Your task to perform on an android device: Search for "apple airpods pro" on bestbuy.com, select the first entry, add it to the cart, then select checkout. Image 0: 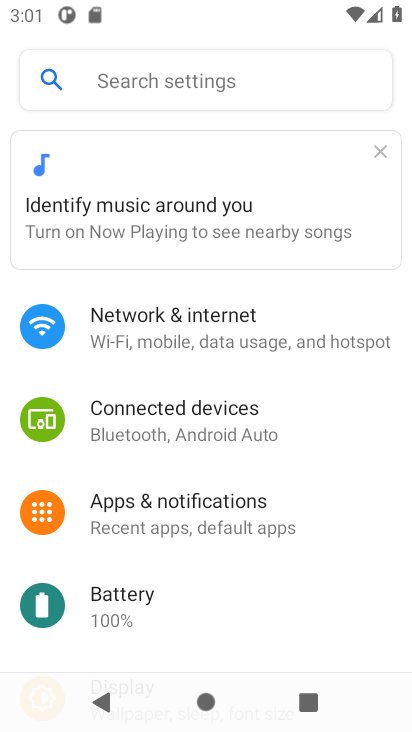
Step 0: drag from (132, 591) to (158, 99)
Your task to perform on an android device: Search for "apple airpods pro" on bestbuy.com, select the first entry, add it to the cart, then select checkout. Image 1: 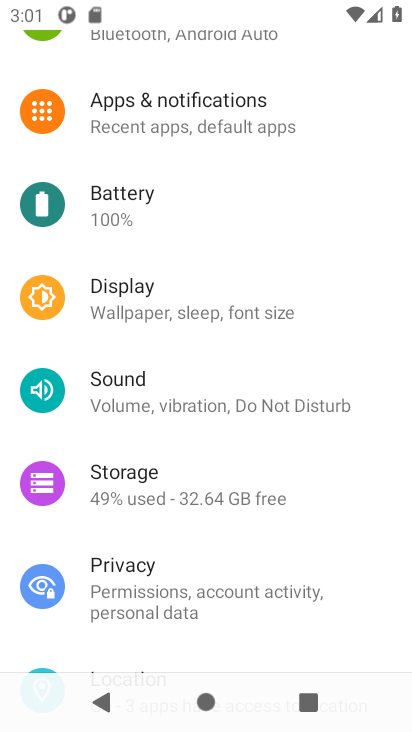
Step 1: press home button
Your task to perform on an android device: Search for "apple airpods pro" on bestbuy.com, select the first entry, add it to the cart, then select checkout. Image 2: 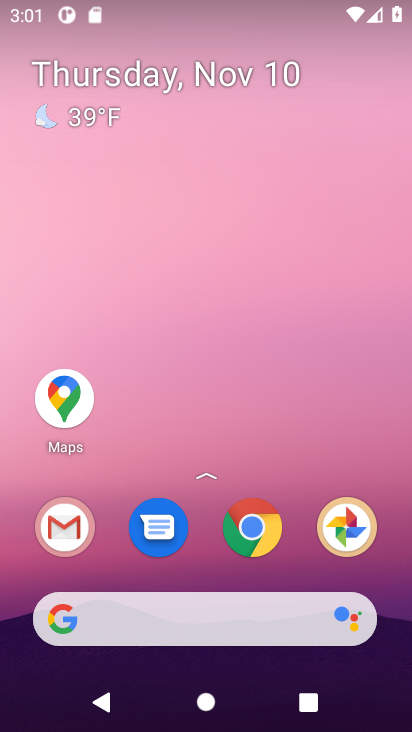
Step 2: drag from (145, 663) to (111, 150)
Your task to perform on an android device: Search for "apple airpods pro" on bestbuy.com, select the first entry, add it to the cart, then select checkout. Image 3: 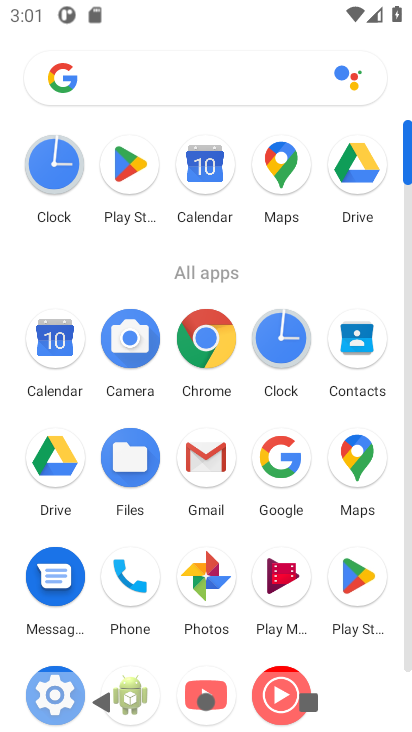
Step 3: click (207, 334)
Your task to perform on an android device: Search for "apple airpods pro" on bestbuy.com, select the first entry, add it to the cart, then select checkout. Image 4: 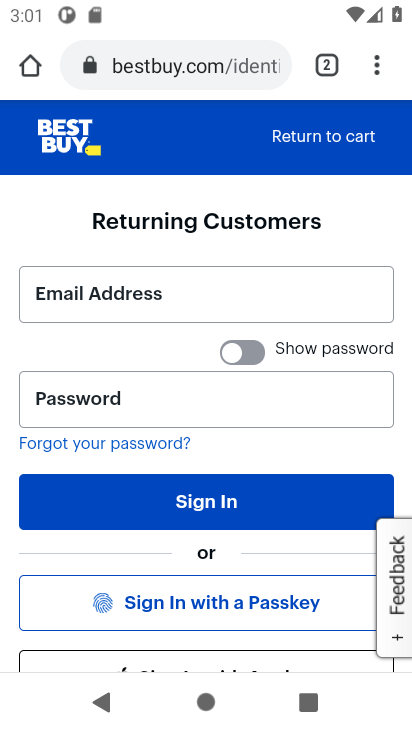
Step 4: press back button
Your task to perform on an android device: Search for "apple airpods pro" on bestbuy.com, select the first entry, add it to the cart, then select checkout. Image 5: 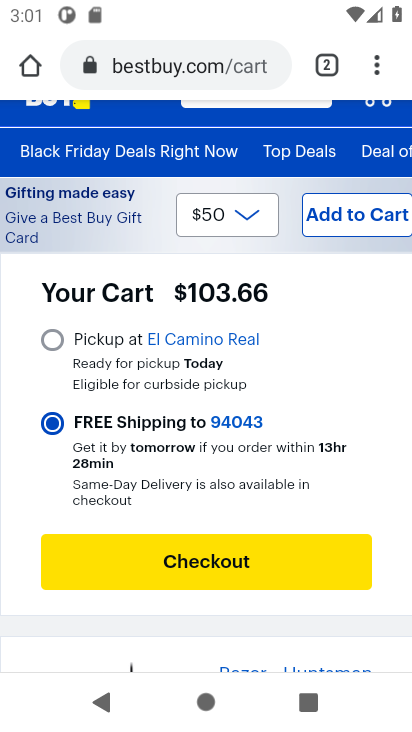
Step 5: drag from (229, 262) to (260, 494)
Your task to perform on an android device: Search for "apple airpods pro" on bestbuy.com, select the first entry, add it to the cart, then select checkout. Image 6: 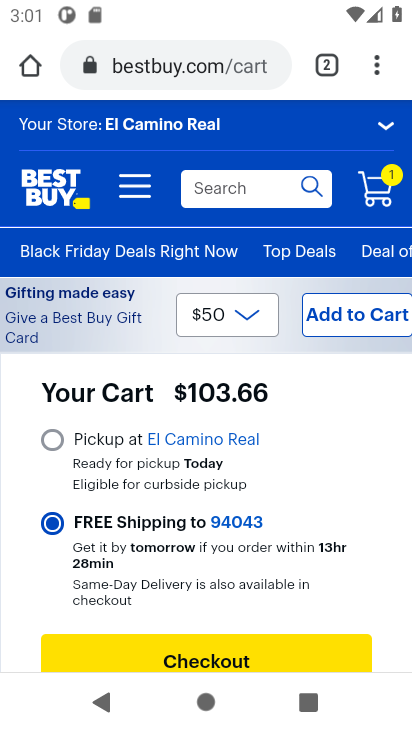
Step 6: click (256, 181)
Your task to perform on an android device: Search for "apple airpods pro" on bestbuy.com, select the first entry, add it to the cart, then select checkout. Image 7: 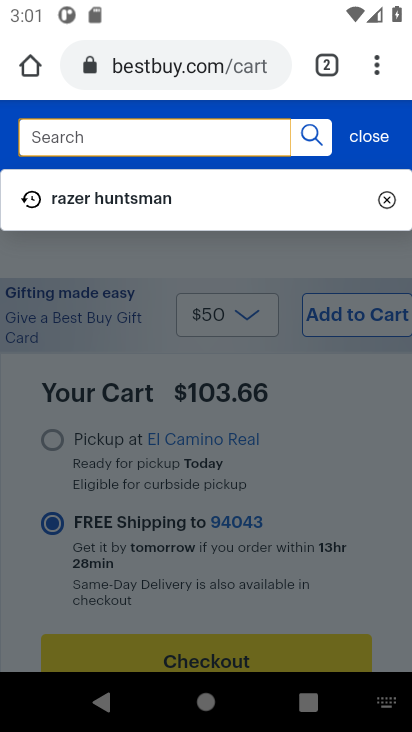
Step 7: type "apple airpods pro"
Your task to perform on an android device: Search for "apple airpods pro" on bestbuy.com, select the first entry, add it to the cart, then select checkout. Image 8: 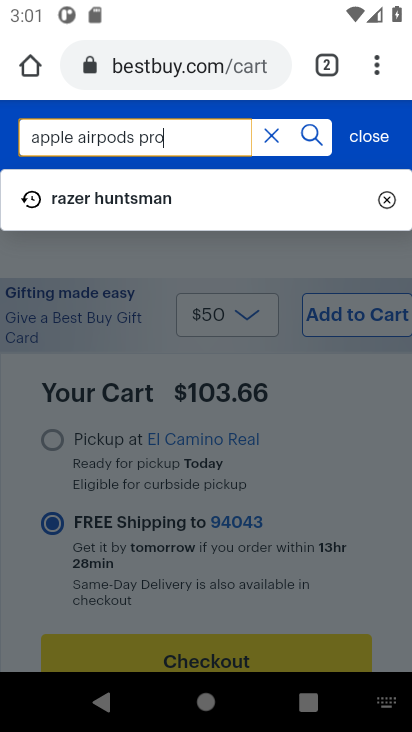
Step 8: press enter
Your task to perform on an android device: Search for "apple airpods pro" on bestbuy.com, select the first entry, add it to the cart, then select checkout. Image 9: 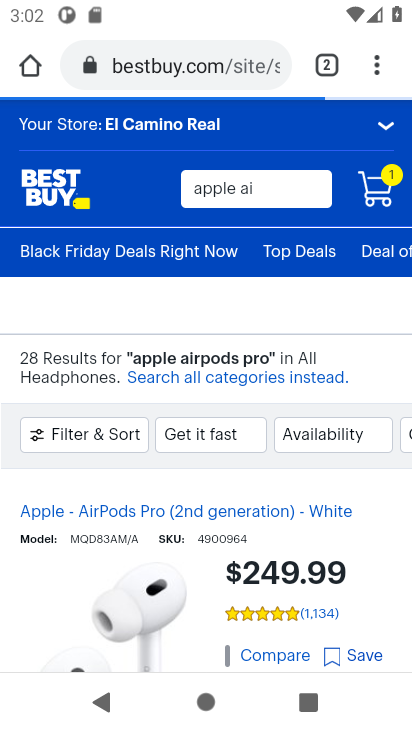
Step 9: drag from (216, 400) to (236, 312)
Your task to perform on an android device: Search for "apple airpods pro" on bestbuy.com, select the first entry, add it to the cart, then select checkout. Image 10: 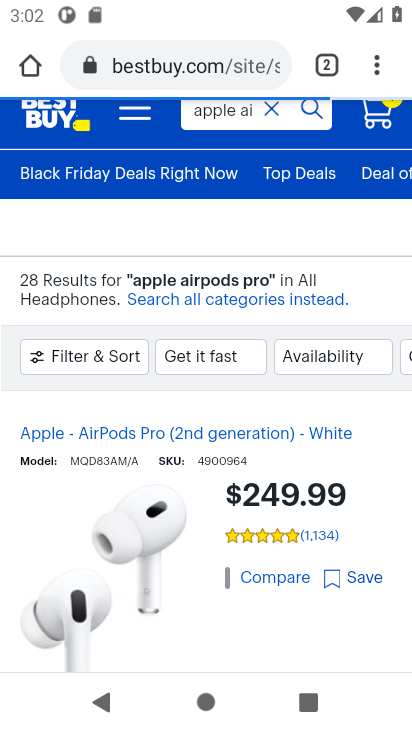
Step 10: drag from (243, 607) to (269, 289)
Your task to perform on an android device: Search for "apple airpods pro" on bestbuy.com, select the first entry, add it to the cart, then select checkout. Image 11: 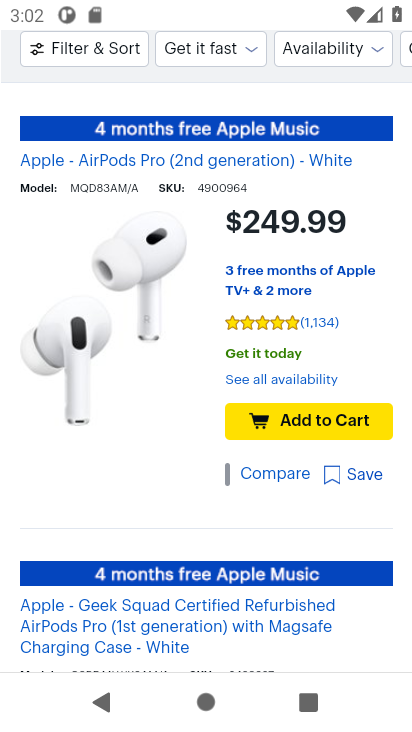
Step 11: click (307, 418)
Your task to perform on an android device: Search for "apple airpods pro" on bestbuy.com, select the first entry, add it to the cart, then select checkout. Image 12: 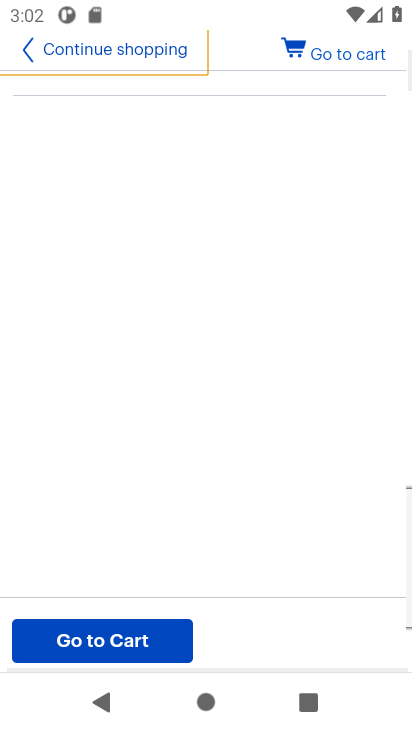
Step 12: drag from (168, 329) to (131, 580)
Your task to perform on an android device: Search for "apple airpods pro" on bestbuy.com, select the first entry, add it to the cart, then select checkout. Image 13: 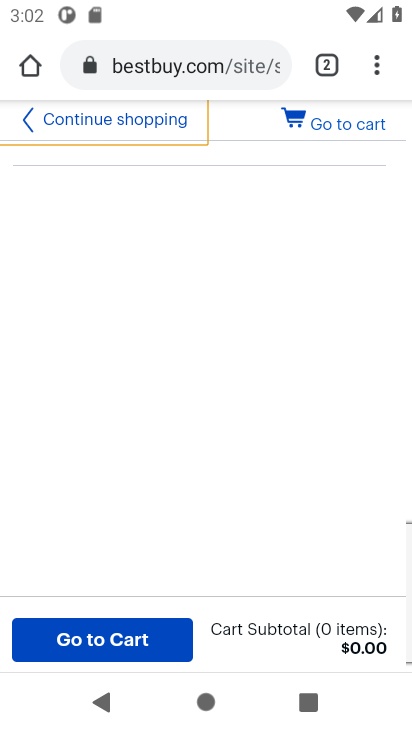
Step 13: drag from (115, 603) to (132, 354)
Your task to perform on an android device: Search for "apple airpods pro" on bestbuy.com, select the first entry, add it to the cart, then select checkout. Image 14: 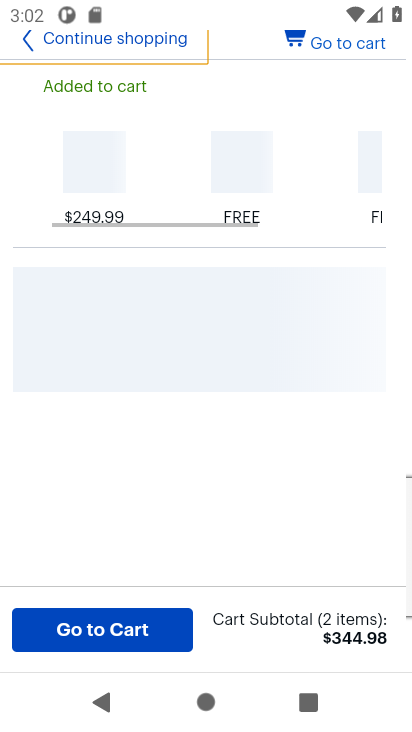
Step 14: drag from (162, 337) to (160, 627)
Your task to perform on an android device: Search for "apple airpods pro" on bestbuy.com, select the first entry, add it to the cart, then select checkout. Image 15: 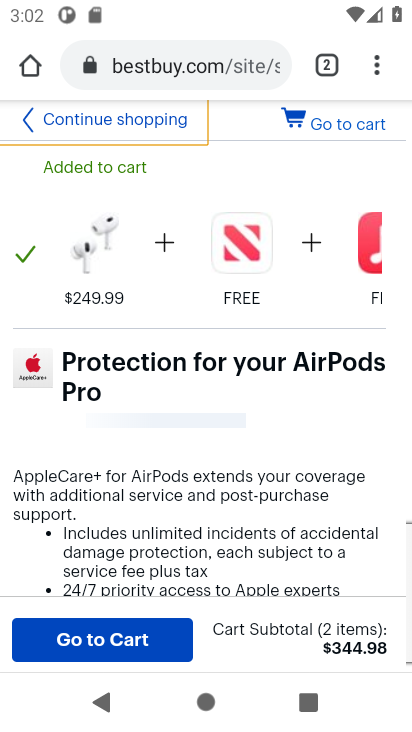
Step 15: drag from (170, 343) to (172, 609)
Your task to perform on an android device: Search for "apple airpods pro" on bestbuy.com, select the first entry, add it to the cart, then select checkout. Image 16: 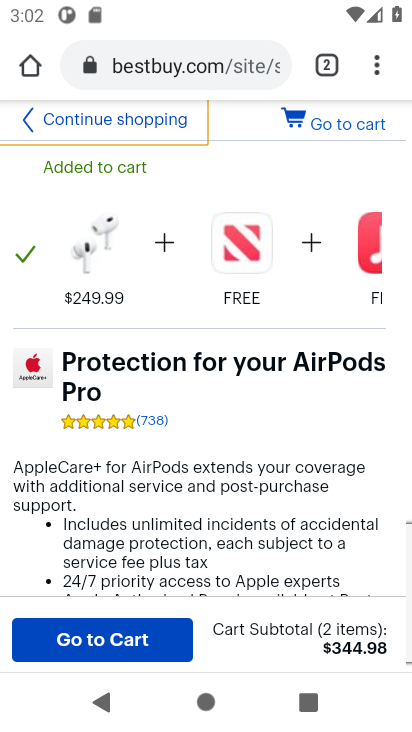
Step 16: click (58, 635)
Your task to perform on an android device: Search for "apple airpods pro" on bestbuy.com, select the first entry, add it to the cart, then select checkout. Image 17: 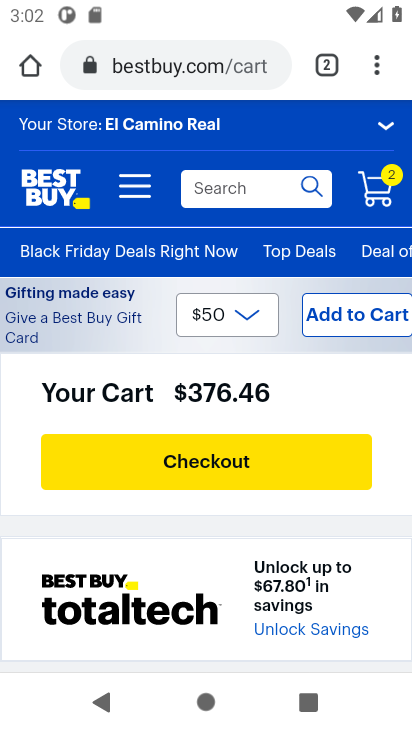
Step 17: click (176, 462)
Your task to perform on an android device: Search for "apple airpods pro" on bestbuy.com, select the first entry, add it to the cart, then select checkout. Image 18: 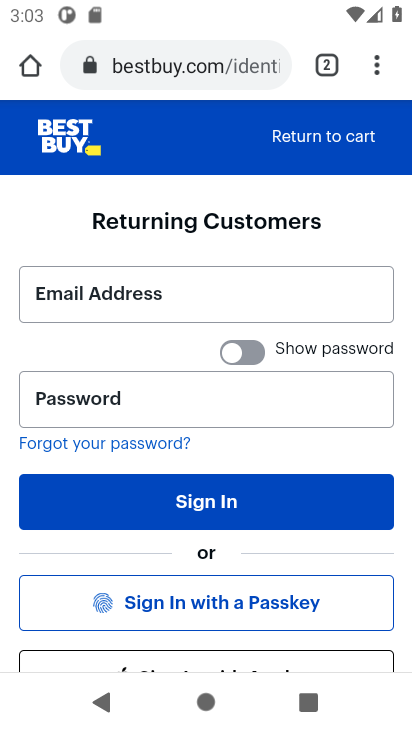
Step 18: task complete